Your task to perform on an android device: turn off notifications in google photos Image 0: 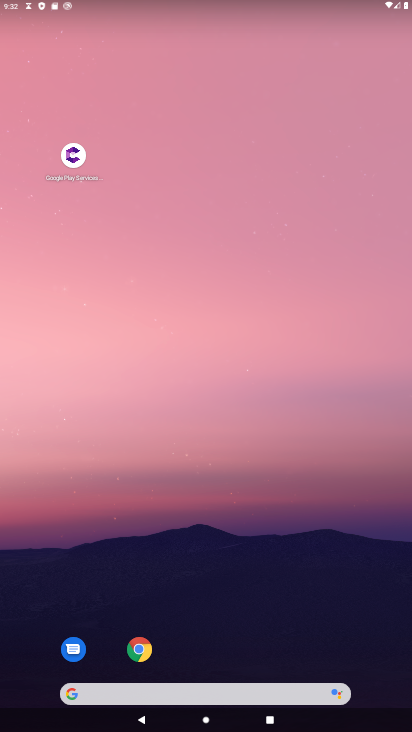
Step 0: drag from (218, 627) to (374, 8)
Your task to perform on an android device: turn off notifications in google photos Image 1: 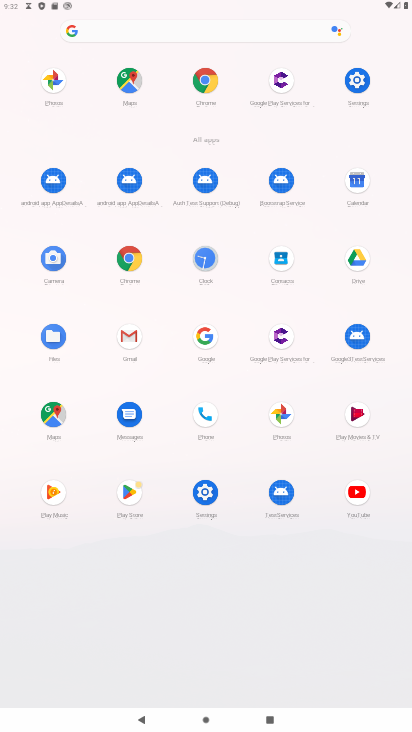
Step 1: click (288, 423)
Your task to perform on an android device: turn off notifications in google photos Image 2: 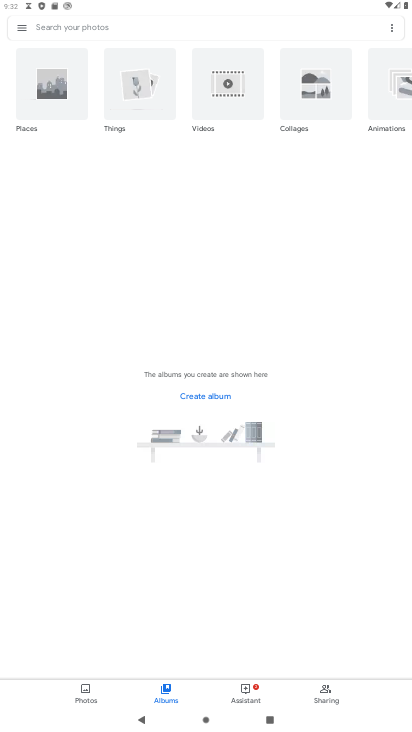
Step 2: click (21, 29)
Your task to perform on an android device: turn off notifications in google photos Image 3: 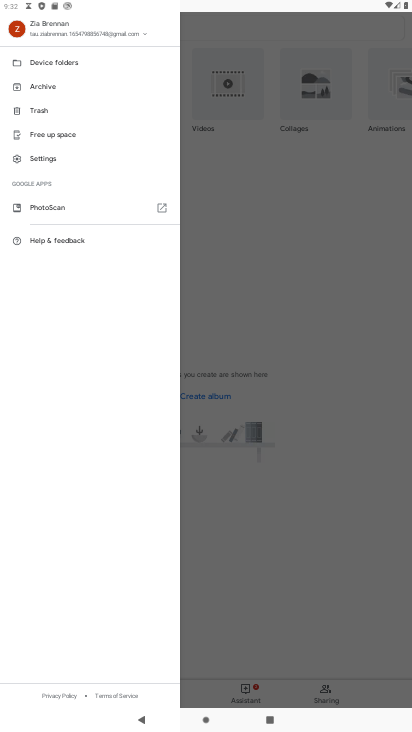
Step 3: click (50, 158)
Your task to perform on an android device: turn off notifications in google photos Image 4: 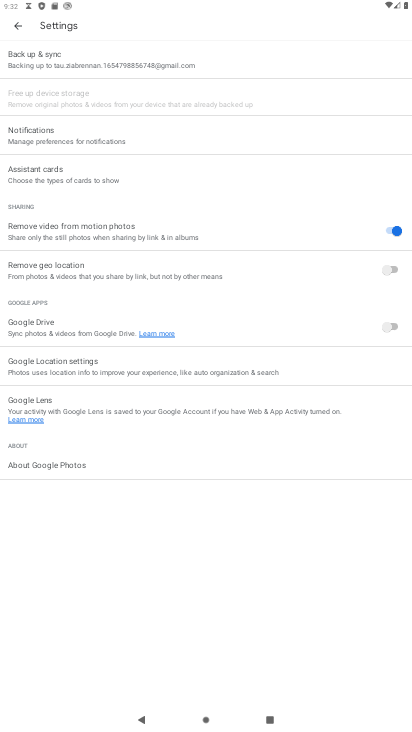
Step 4: click (69, 140)
Your task to perform on an android device: turn off notifications in google photos Image 5: 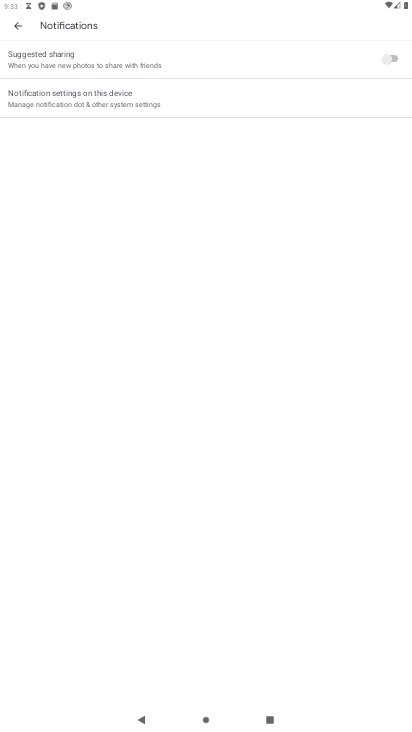
Step 5: click (109, 103)
Your task to perform on an android device: turn off notifications in google photos Image 6: 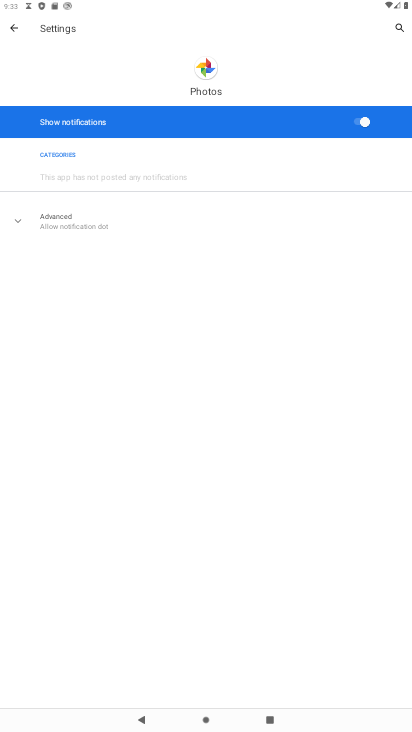
Step 6: click (340, 120)
Your task to perform on an android device: turn off notifications in google photos Image 7: 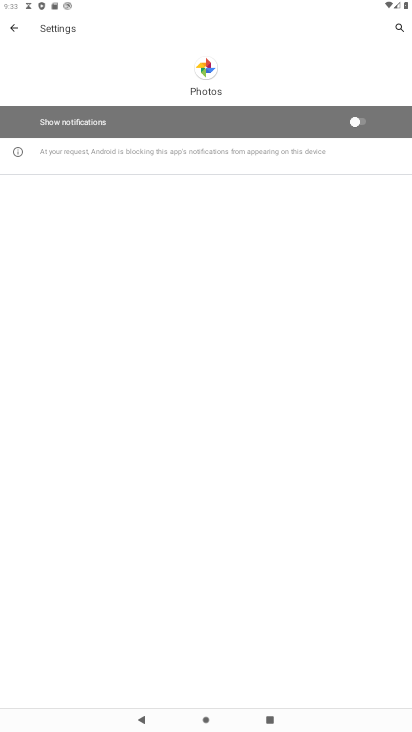
Step 7: task complete